Your task to perform on an android device: open the mobile data screen to see how much data has been used Image 0: 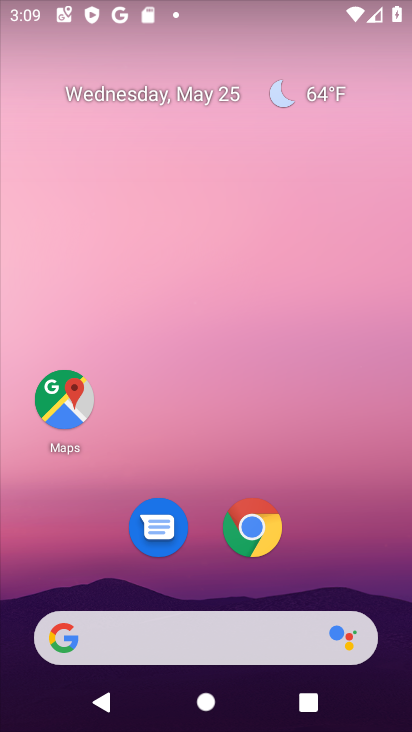
Step 0: drag from (213, 553) to (323, 61)
Your task to perform on an android device: open the mobile data screen to see how much data has been used Image 1: 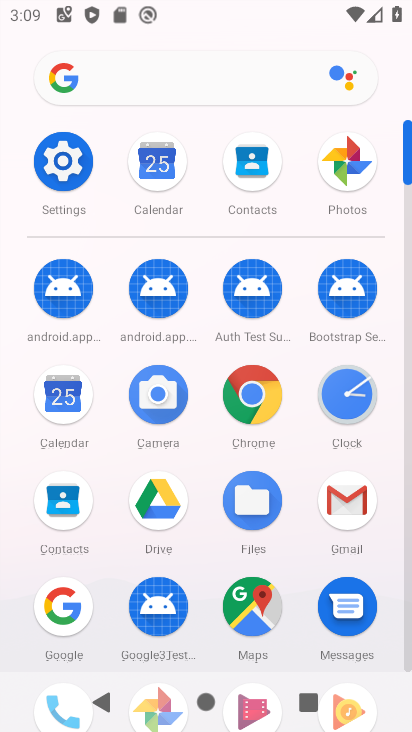
Step 1: click (70, 160)
Your task to perform on an android device: open the mobile data screen to see how much data has been used Image 2: 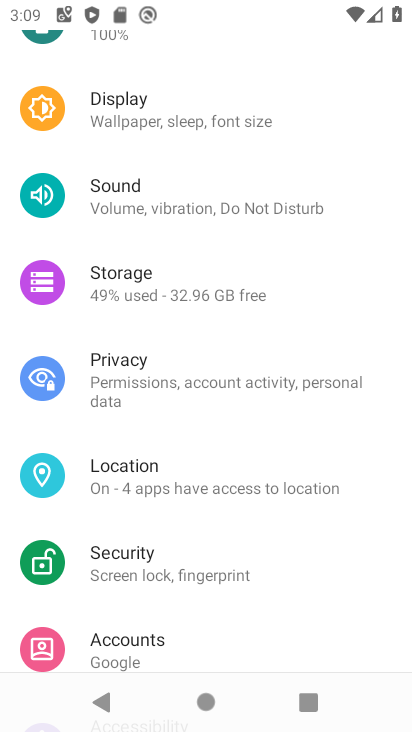
Step 2: drag from (224, 163) to (255, 635)
Your task to perform on an android device: open the mobile data screen to see how much data has been used Image 3: 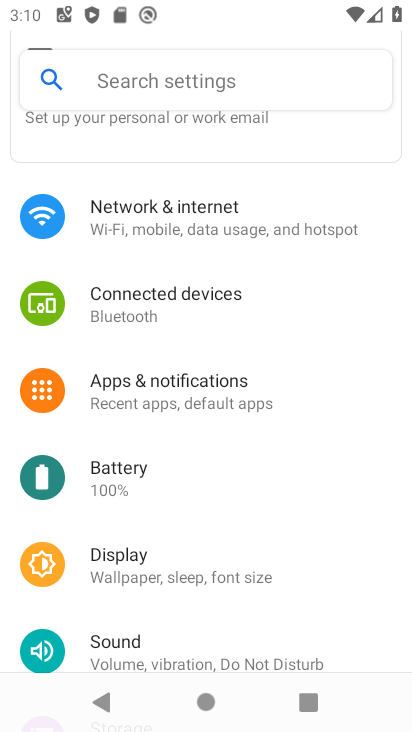
Step 3: click (206, 219)
Your task to perform on an android device: open the mobile data screen to see how much data has been used Image 4: 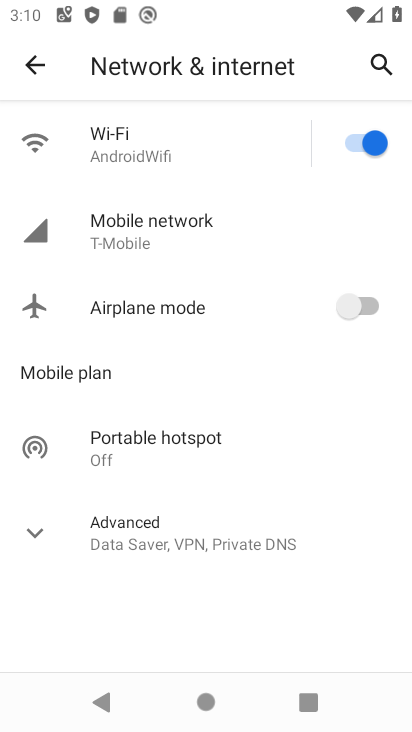
Step 4: click (193, 231)
Your task to perform on an android device: open the mobile data screen to see how much data has been used Image 5: 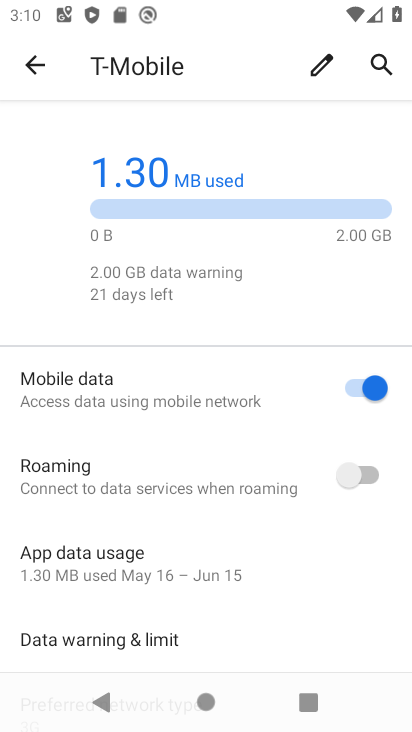
Step 5: click (115, 551)
Your task to perform on an android device: open the mobile data screen to see how much data has been used Image 6: 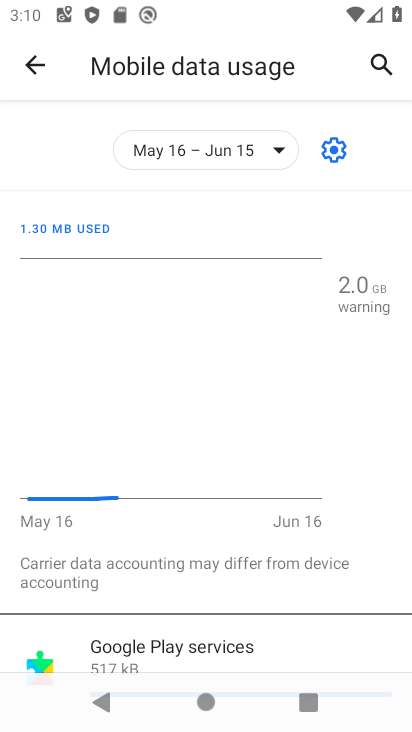
Step 6: task complete